Your task to perform on an android device: turn off notifications in google photos Image 0: 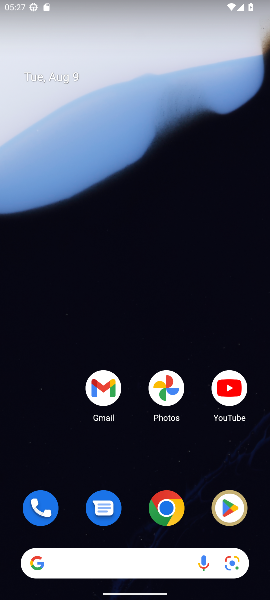
Step 0: click (162, 401)
Your task to perform on an android device: turn off notifications in google photos Image 1: 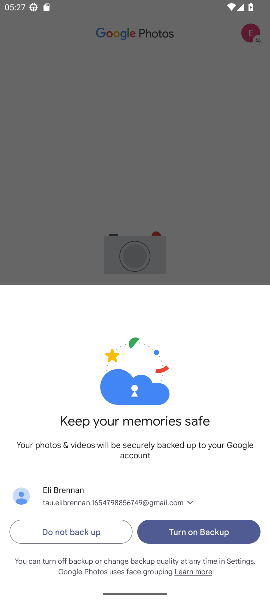
Step 1: click (81, 534)
Your task to perform on an android device: turn off notifications in google photos Image 2: 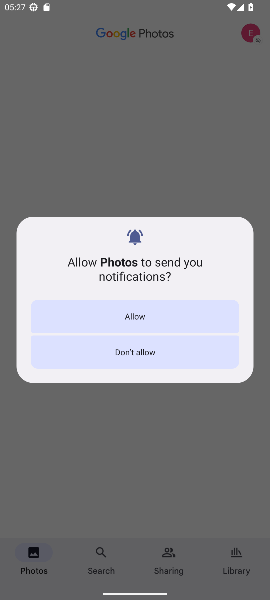
Step 2: click (170, 321)
Your task to perform on an android device: turn off notifications in google photos Image 3: 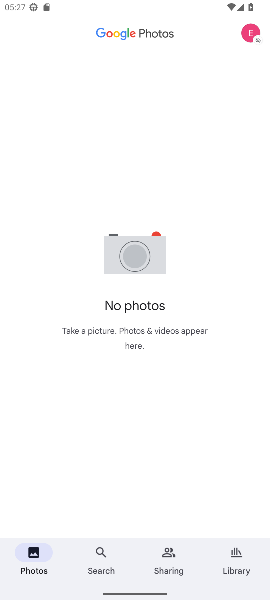
Step 3: click (248, 28)
Your task to perform on an android device: turn off notifications in google photos Image 4: 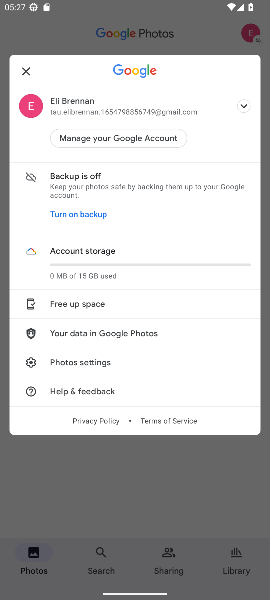
Step 4: click (105, 367)
Your task to perform on an android device: turn off notifications in google photos Image 5: 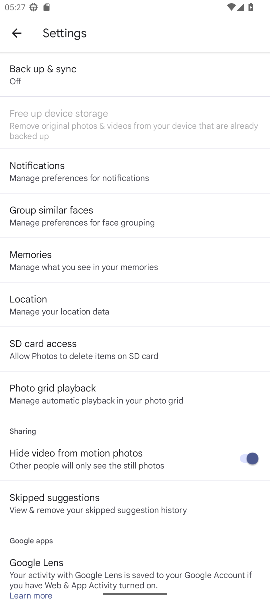
Step 5: click (107, 172)
Your task to perform on an android device: turn off notifications in google photos Image 6: 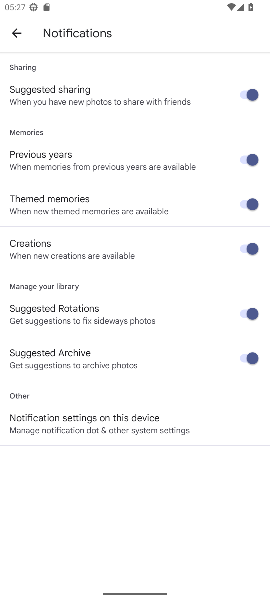
Step 6: click (70, 431)
Your task to perform on an android device: turn off notifications in google photos Image 7: 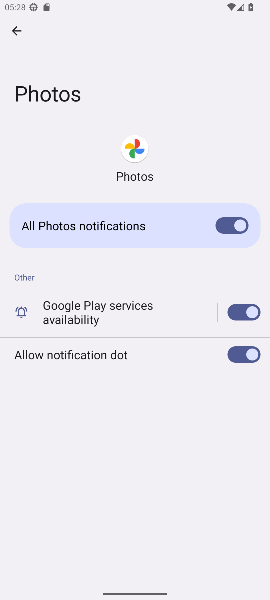
Step 7: click (228, 229)
Your task to perform on an android device: turn off notifications in google photos Image 8: 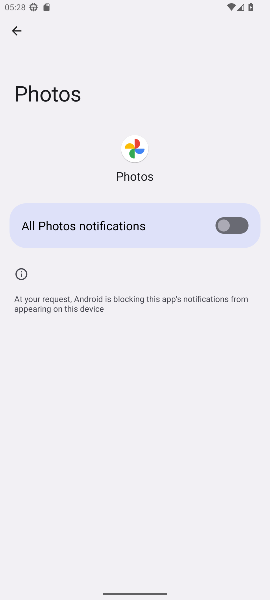
Step 8: task complete